Your task to perform on an android device: Go to Google Image 0: 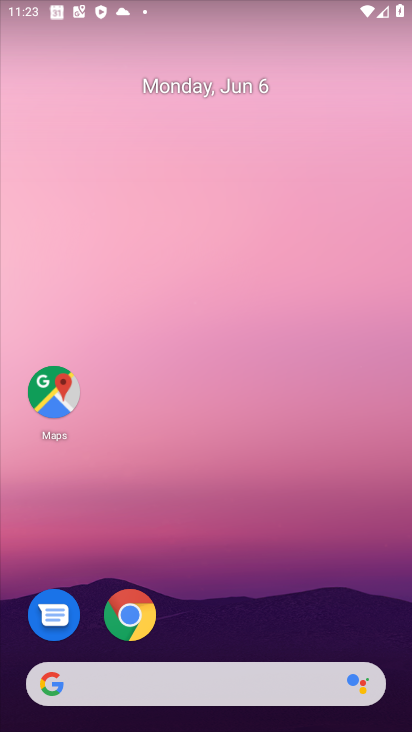
Step 0: click (273, 679)
Your task to perform on an android device: Go to Google Image 1: 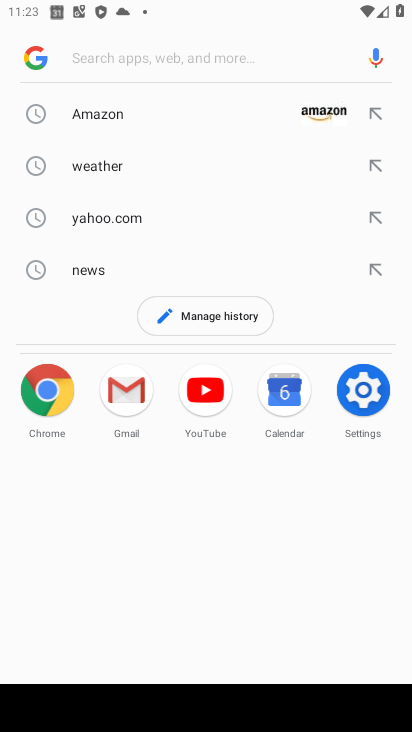
Step 1: type "google"
Your task to perform on an android device: Go to Google Image 2: 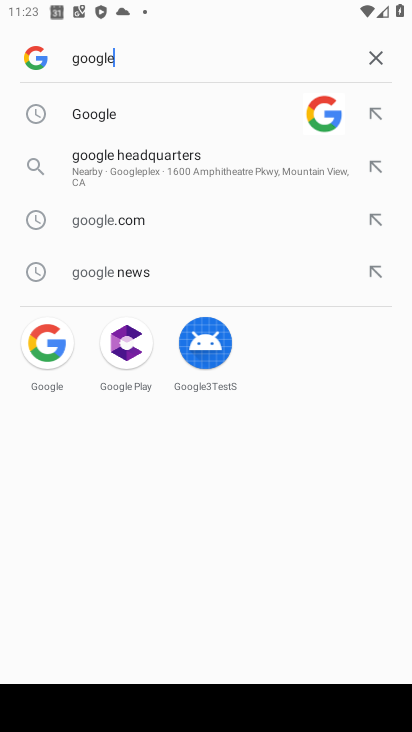
Step 2: click (215, 122)
Your task to perform on an android device: Go to Google Image 3: 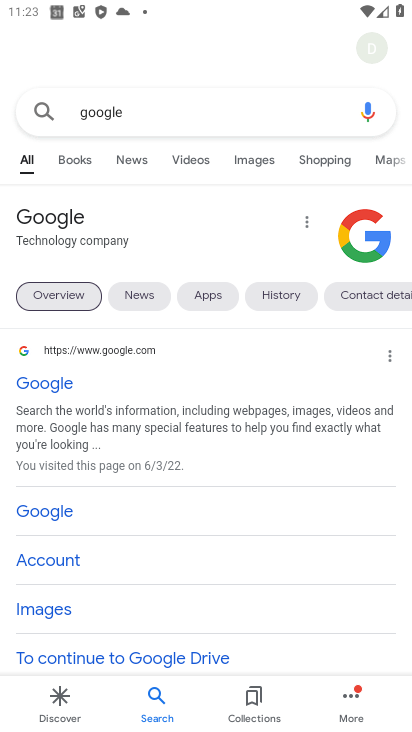
Step 3: task complete